Your task to perform on an android device: Open maps Image 0: 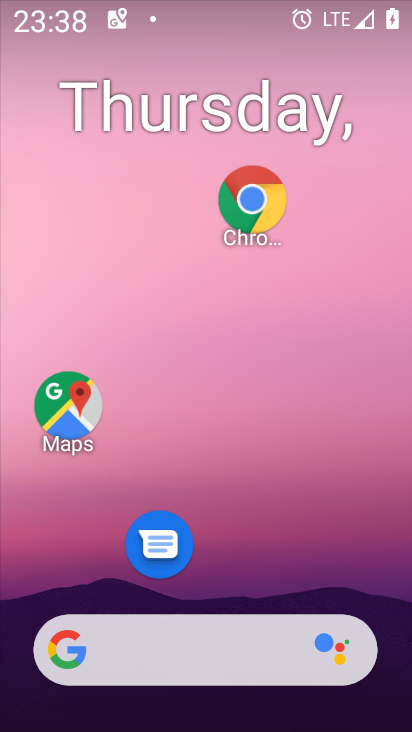
Step 0: click (57, 394)
Your task to perform on an android device: Open maps Image 1: 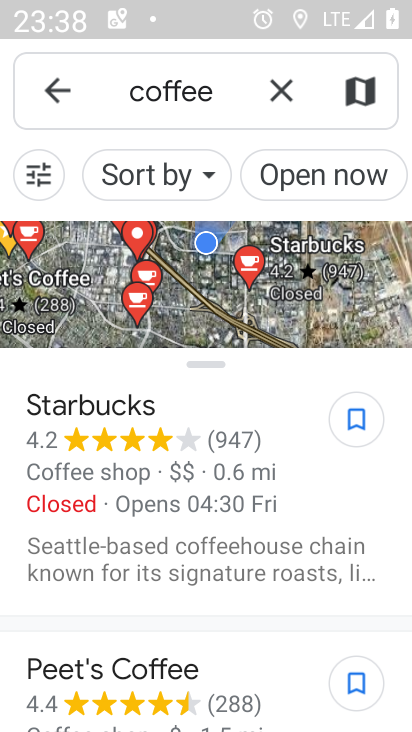
Step 1: task complete